Your task to perform on an android device: Open settings Image 0: 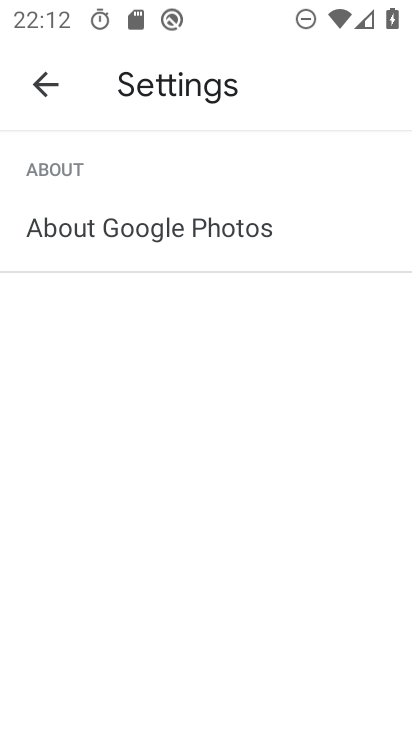
Step 0: press home button
Your task to perform on an android device: Open settings Image 1: 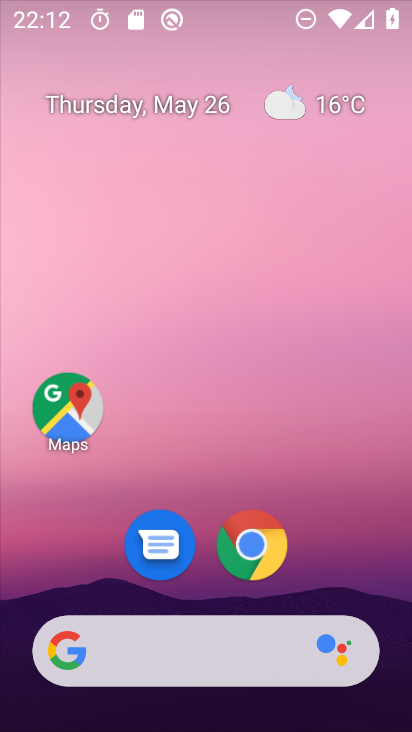
Step 1: drag from (335, 546) to (341, 80)
Your task to perform on an android device: Open settings Image 2: 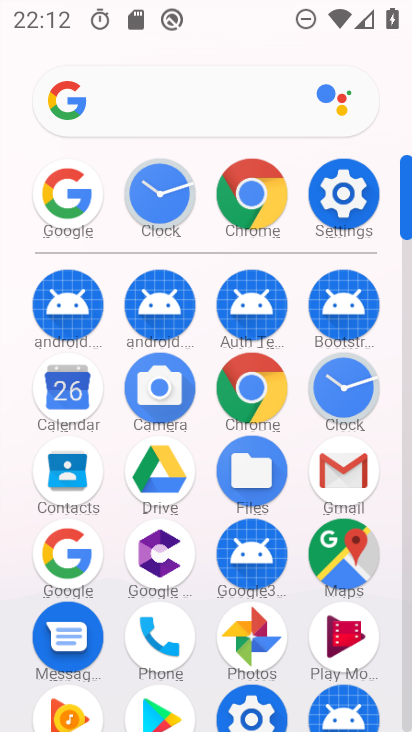
Step 2: click (346, 192)
Your task to perform on an android device: Open settings Image 3: 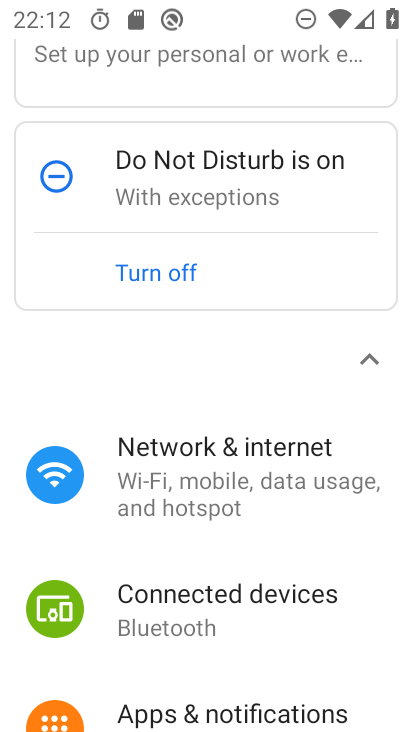
Step 3: task complete